Your task to perform on an android device: empty trash in google photos Image 0: 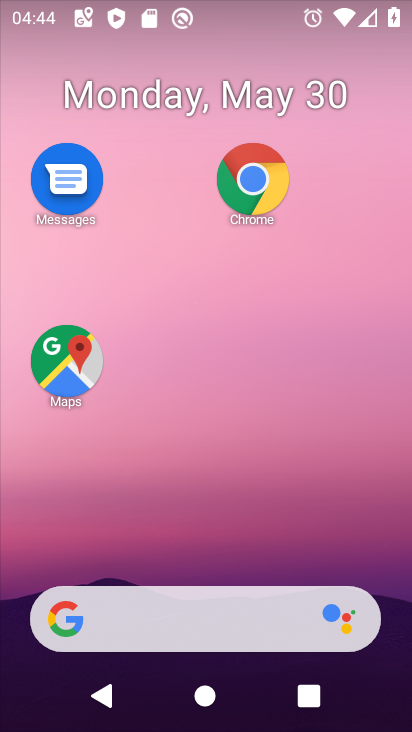
Step 0: drag from (185, 565) to (200, 70)
Your task to perform on an android device: empty trash in google photos Image 1: 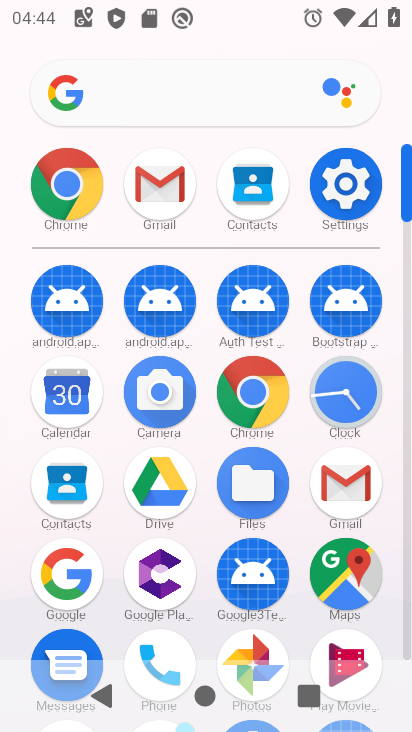
Step 1: click (267, 652)
Your task to perform on an android device: empty trash in google photos Image 2: 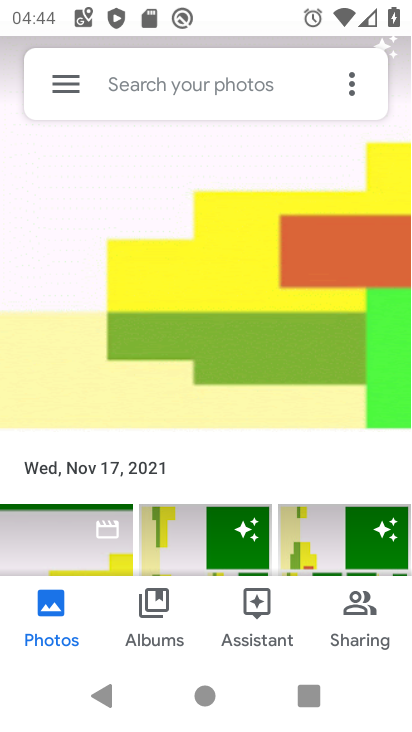
Step 2: click (62, 82)
Your task to perform on an android device: empty trash in google photos Image 3: 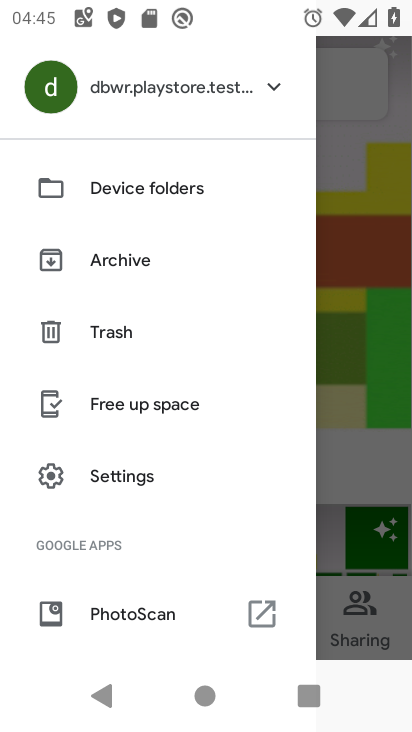
Step 3: click (110, 328)
Your task to perform on an android device: empty trash in google photos Image 4: 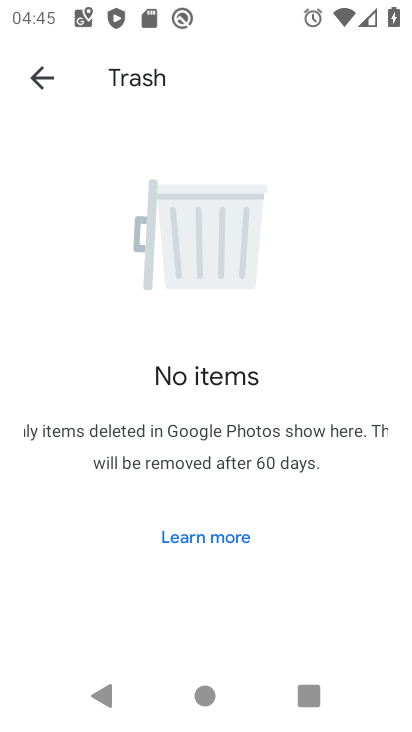
Step 4: task complete